Your task to perform on an android device: Open the web browser Image 0: 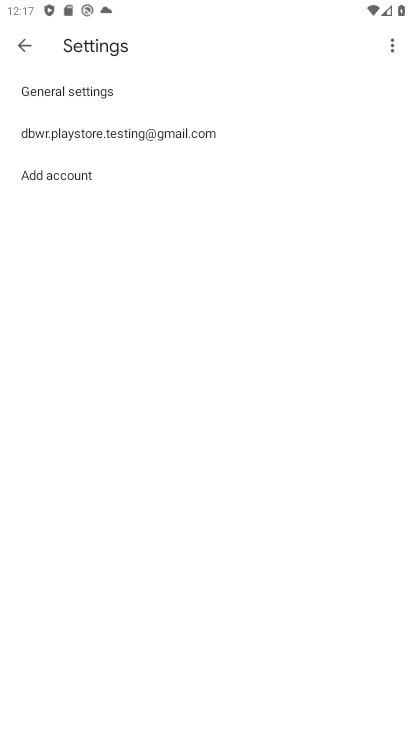
Step 0: press home button
Your task to perform on an android device: Open the web browser Image 1: 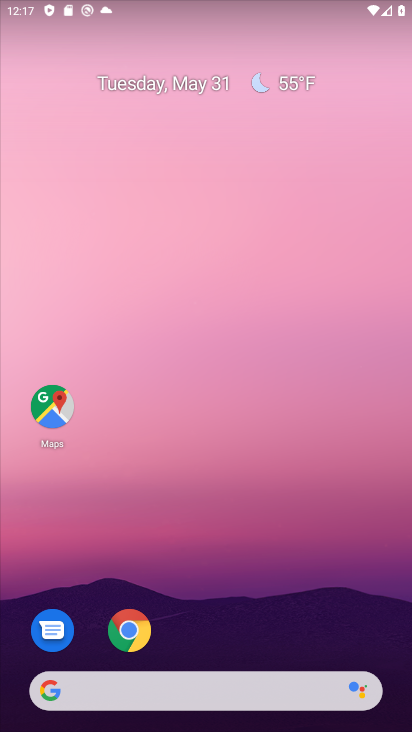
Step 1: click (124, 631)
Your task to perform on an android device: Open the web browser Image 2: 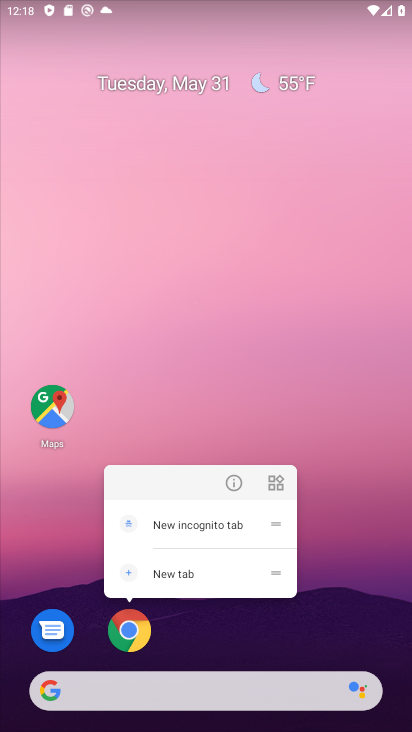
Step 2: click (140, 628)
Your task to perform on an android device: Open the web browser Image 3: 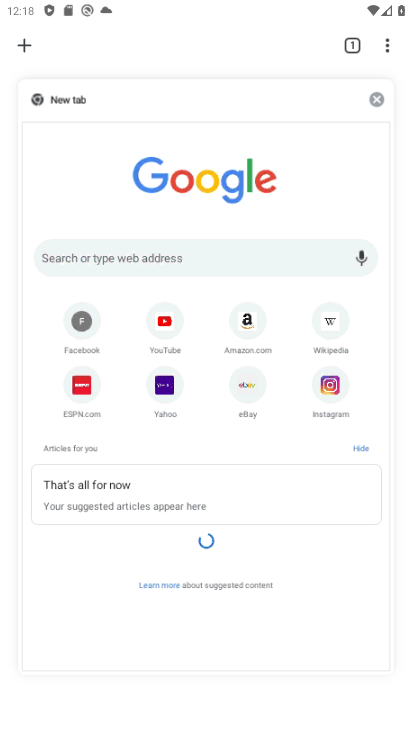
Step 3: task complete